Your task to perform on an android device: Go to display settings Image 0: 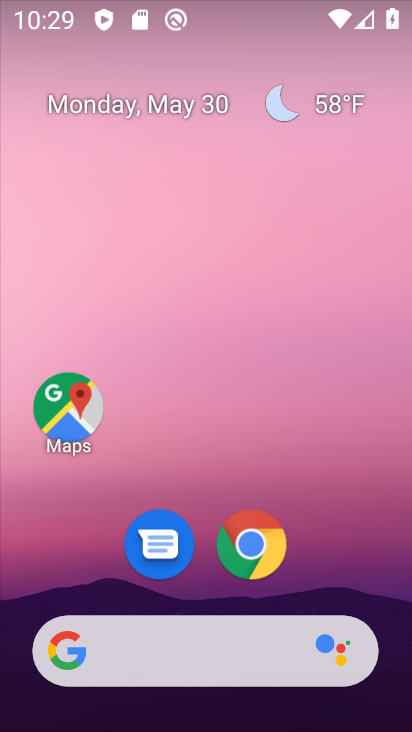
Step 0: drag from (353, 584) to (277, 39)
Your task to perform on an android device: Go to display settings Image 1: 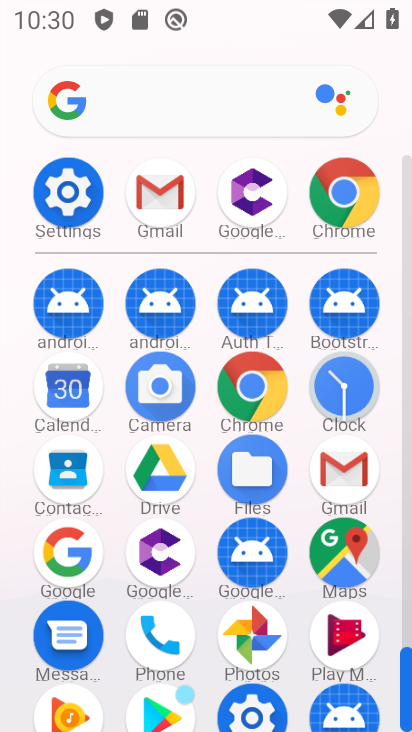
Step 1: click (75, 210)
Your task to perform on an android device: Go to display settings Image 2: 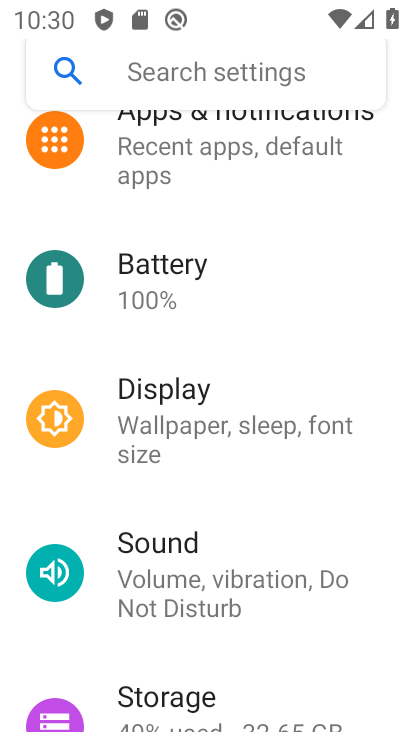
Step 2: click (180, 388)
Your task to perform on an android device: Go to display settings Image 3: 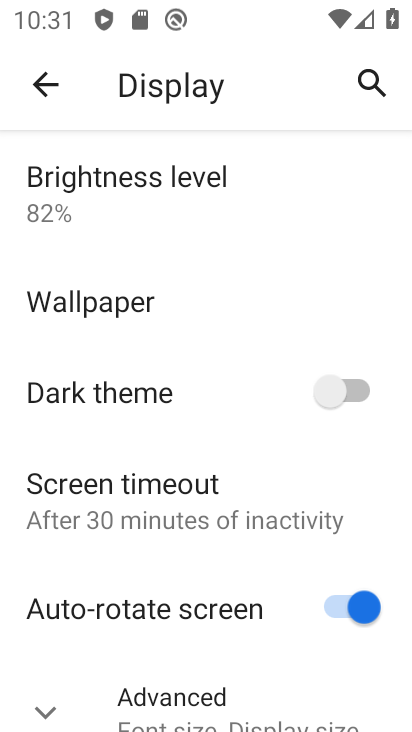
Step 3: task complete